Your task to perform on an android device: Search for vegetarian restaurants on Maps Image 0: 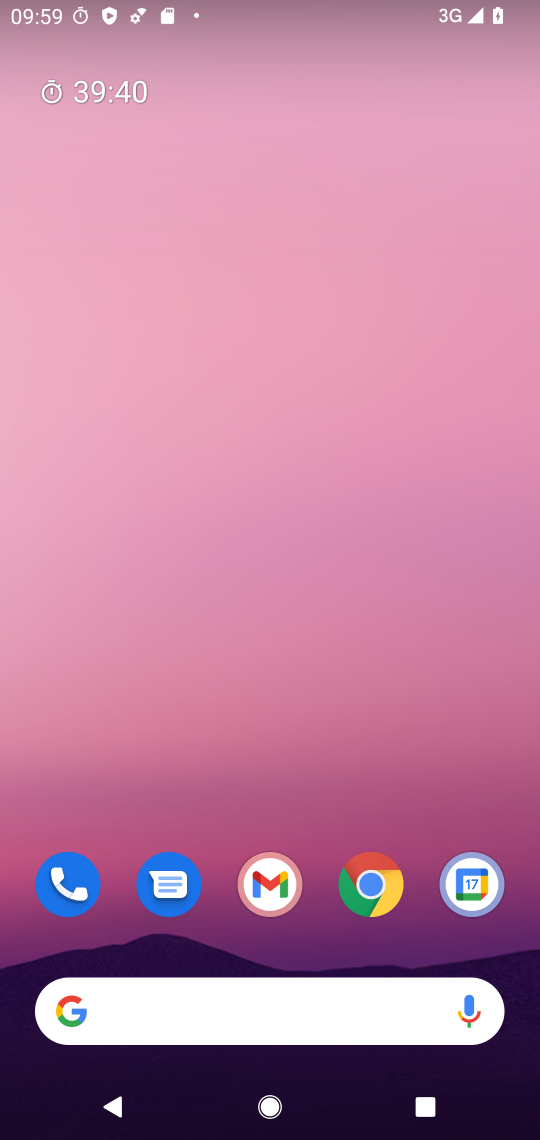
Step 0: drag from (307, 789) to (322, 131)
Your task to perform on an android device: Search for vegetarian restaurants on Maps Image 1: 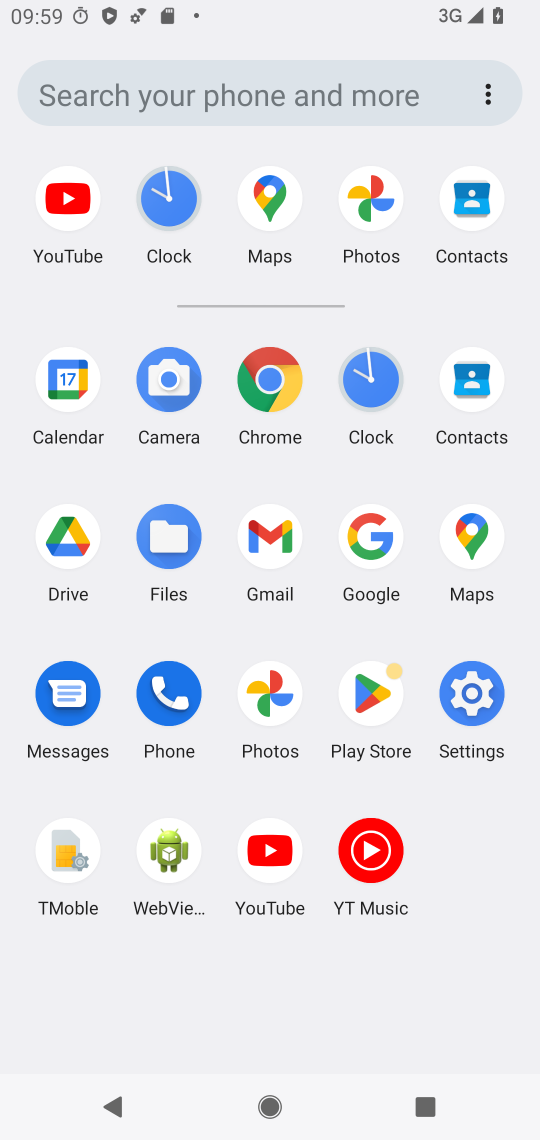
Step 1: click (264, 225)
Your task to perform on an android device: Search for vegetarian restaurants on Maps Image 2: 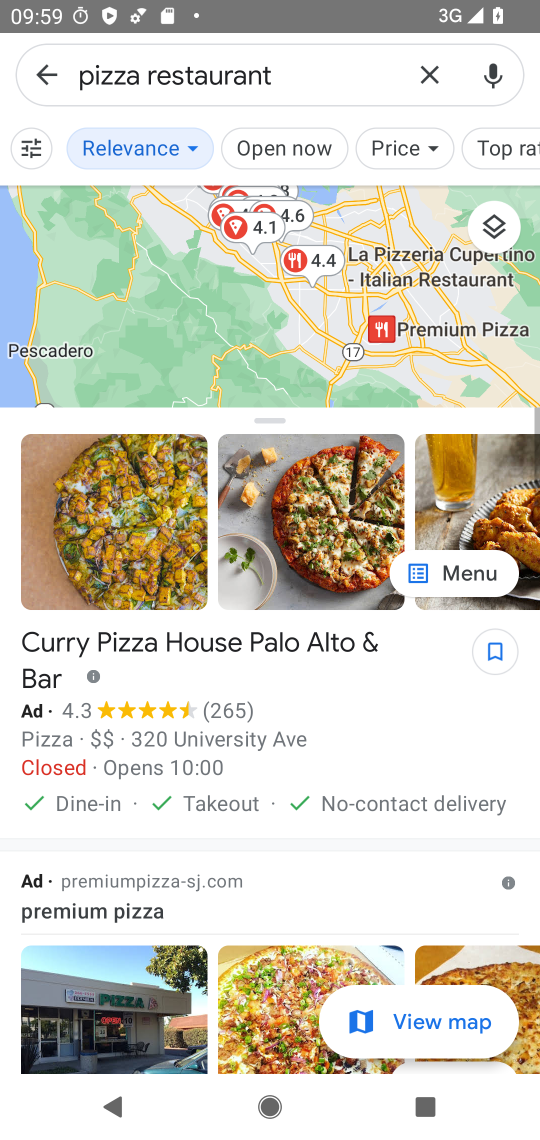
Step 2: click (423, 84)
Your task to perform on an android device: Search for vegetarian restaurants on Maps Image 3: 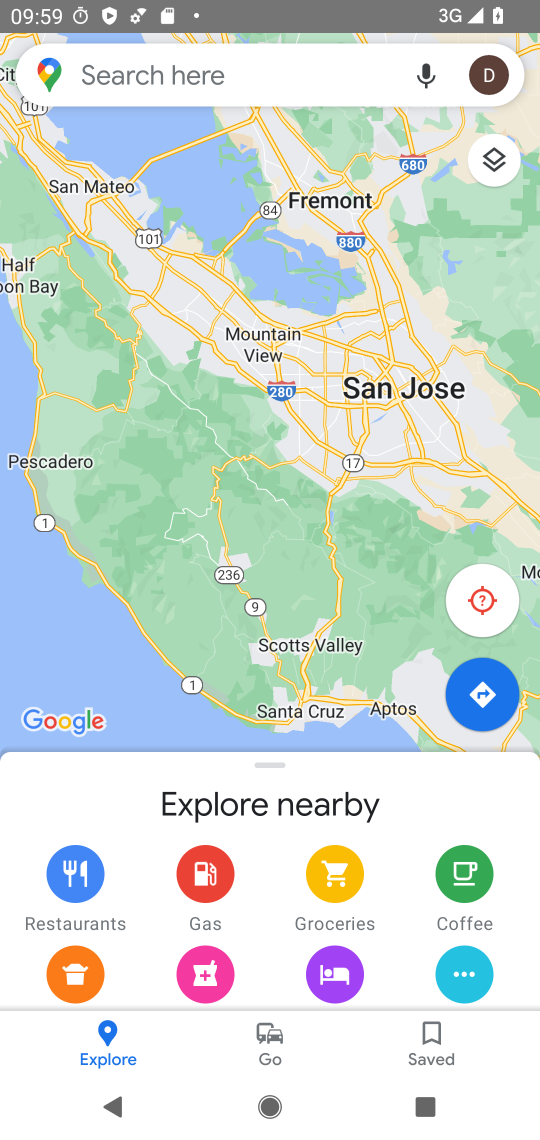
Step 3: click (252, 82)
Your task to perform on an android device: Search for vegetarian restaurants on Maps Image 4: 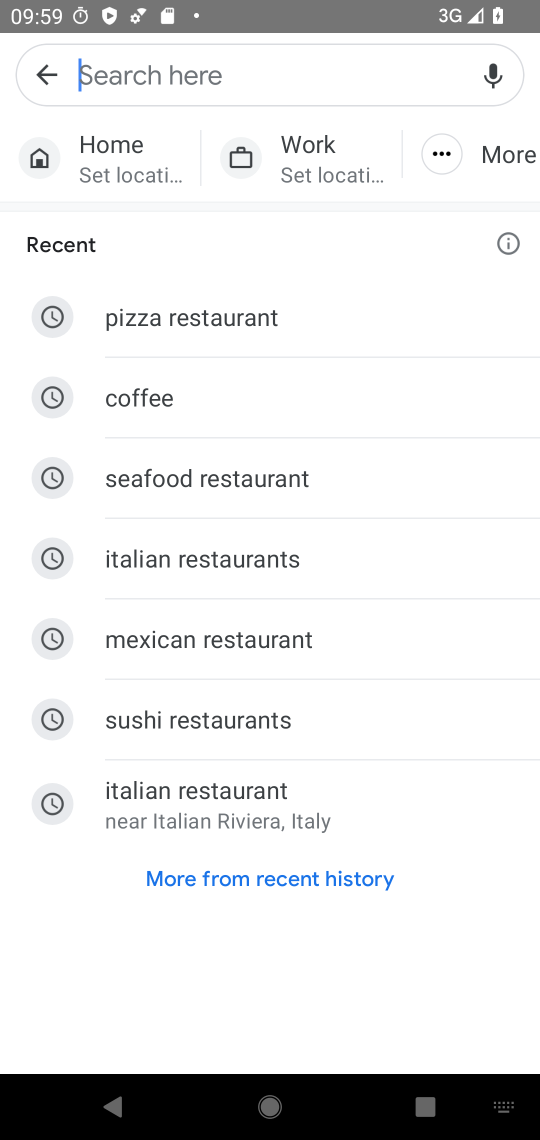
Step 4: type "vegetarian restaurants"
Your task to perform on an android device: Search for vegetarian restaurants on Maps Image 5: 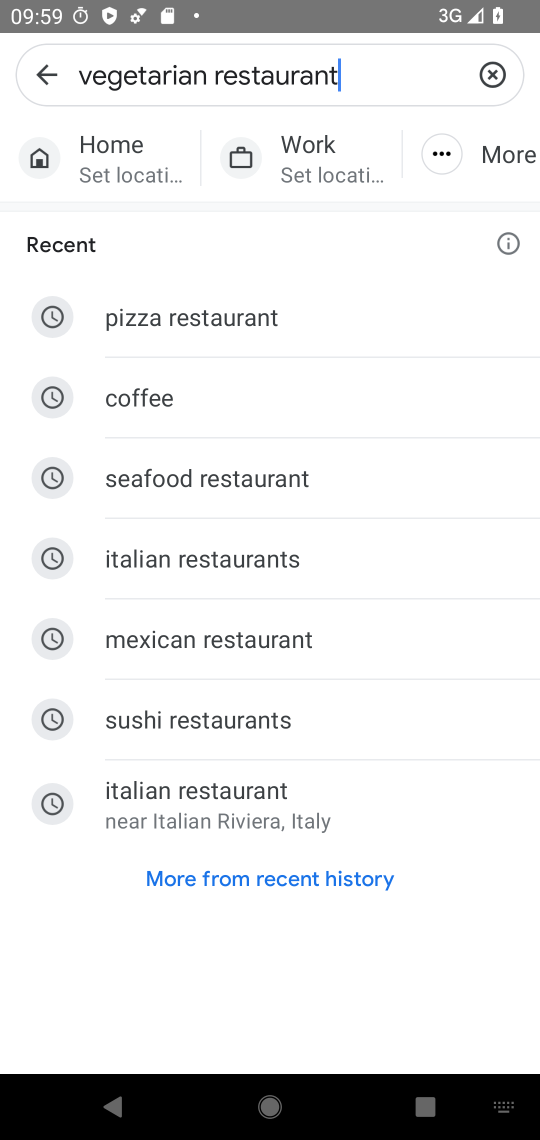
Step 5: type ""
Your task to perform on an android device: Search for vegetarian restaurants on Maps Image 6: 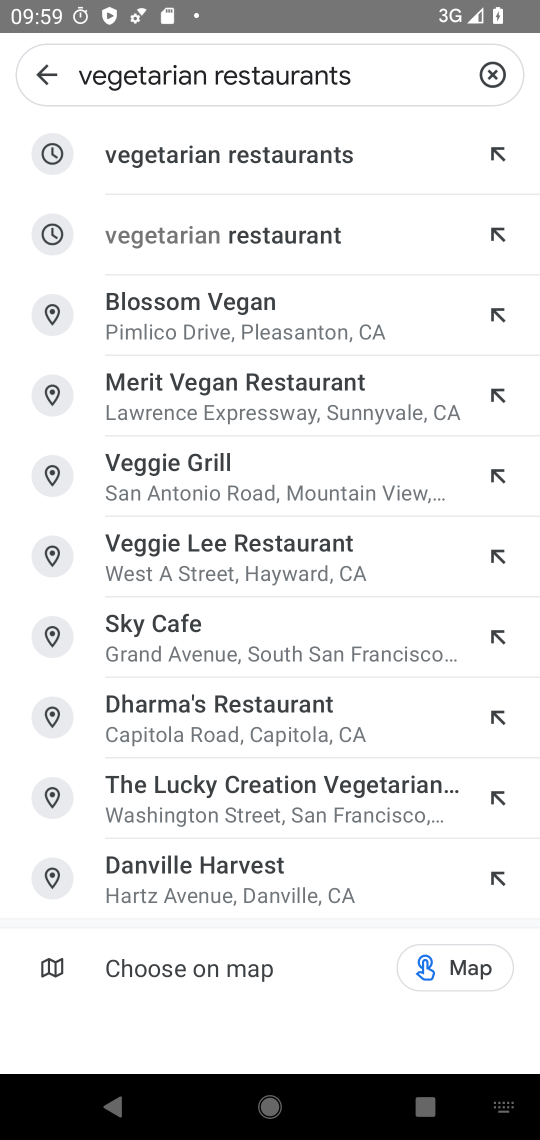
Step 6: click (305, 174)
Your task to perform on an android device: Search for vegetarian restaurants on Maps Image 7: 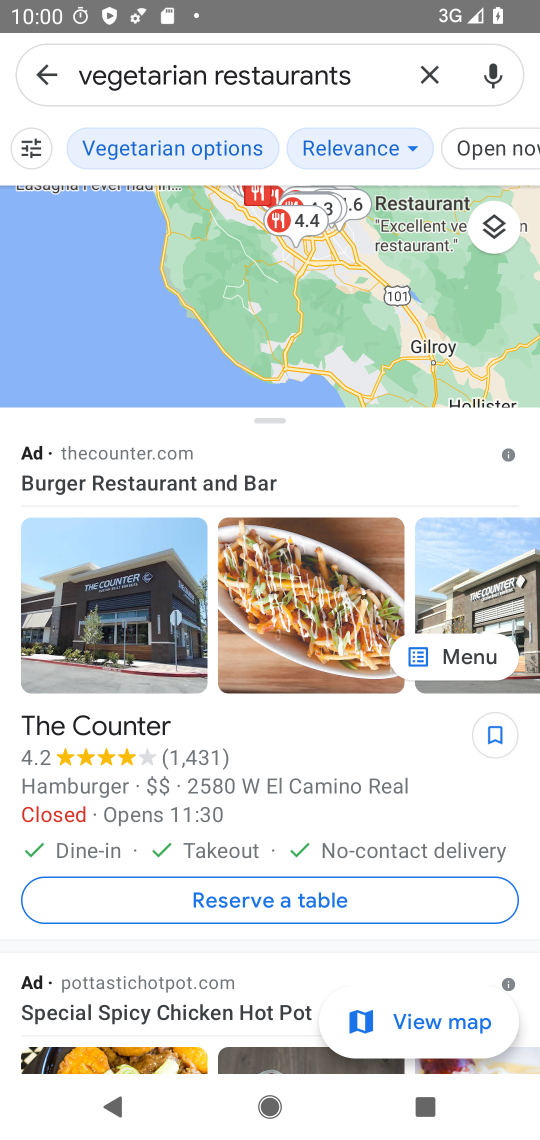
Step 7: task complete